Your task to perform on an android device: Check the news Image 0: 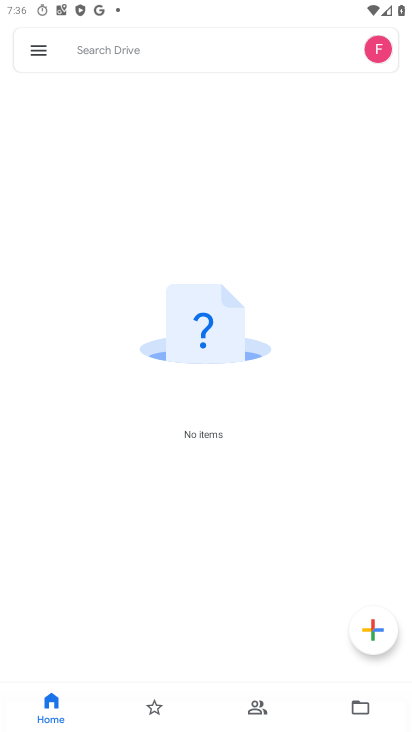
Step 0: press home button
Your task to perform on an android device: Check the news Image 1: 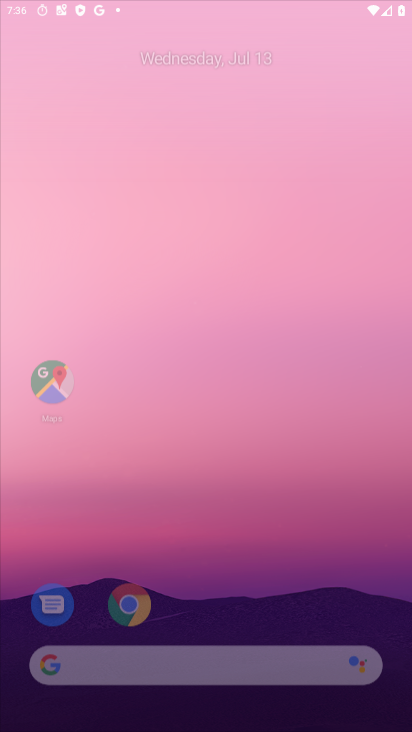
Step 1: drag from (333, 660) to (247, 25)
Your task to perform on an android device: Check the news Image 2: 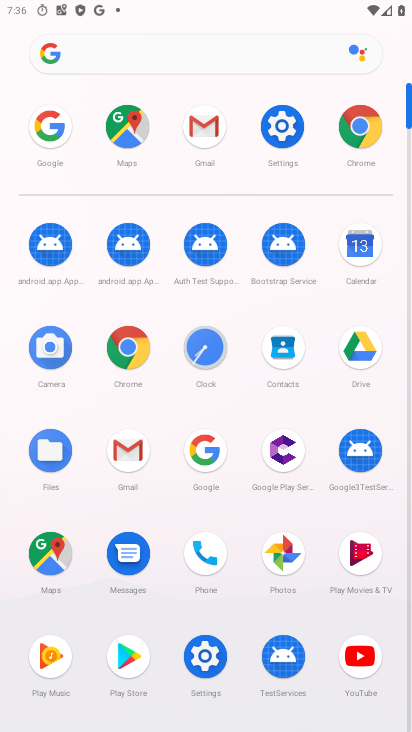
Step 2: click (203, 456)
Your task to perform on an android device: Check the news Image 3: 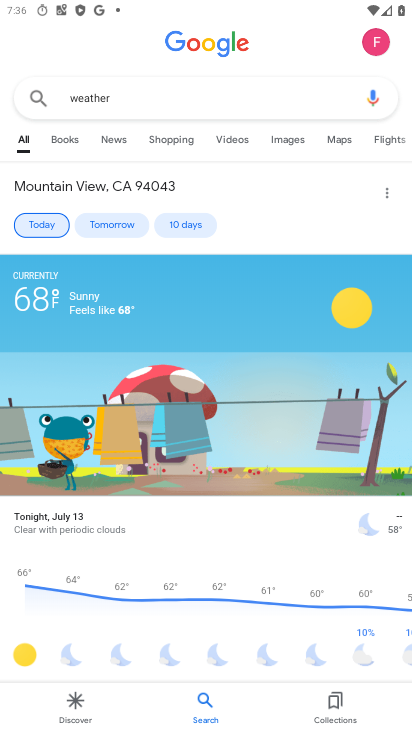
Step 3: press back button
Your task to perform on an android device: Check the news Image 4: 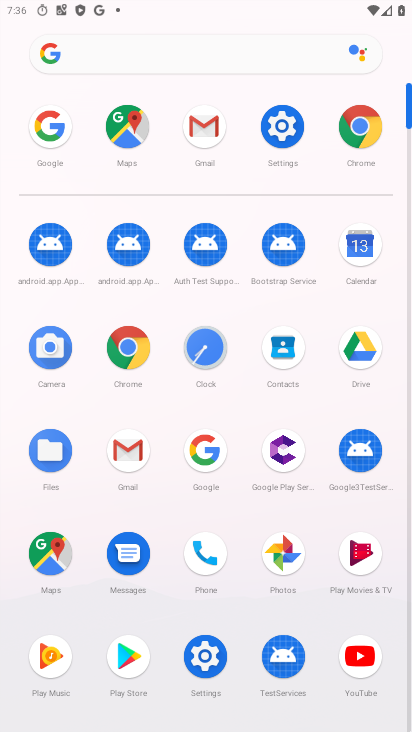
Step 4: click (98, 50)
Your task to perform on an android device: Check the news Image 5: 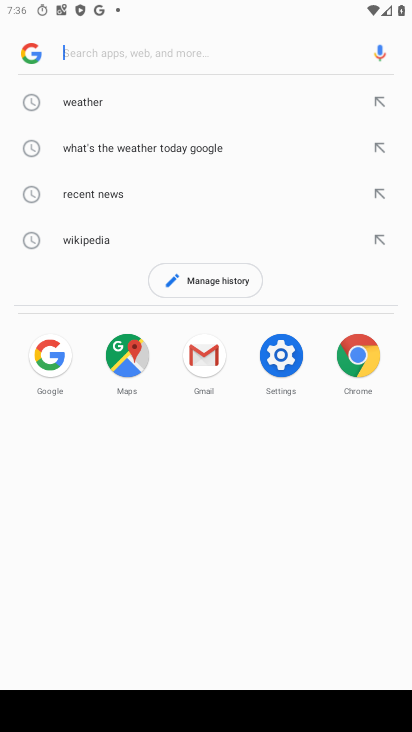
Step 5: type "news"
Your task to perform on an android device: Check the news Image 6: 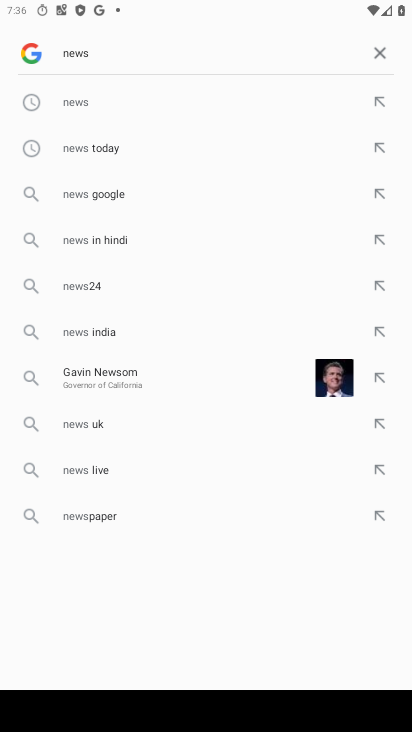
Step 6: click (88, 120)
Your task to perform on an android device: Check the news Image 7: 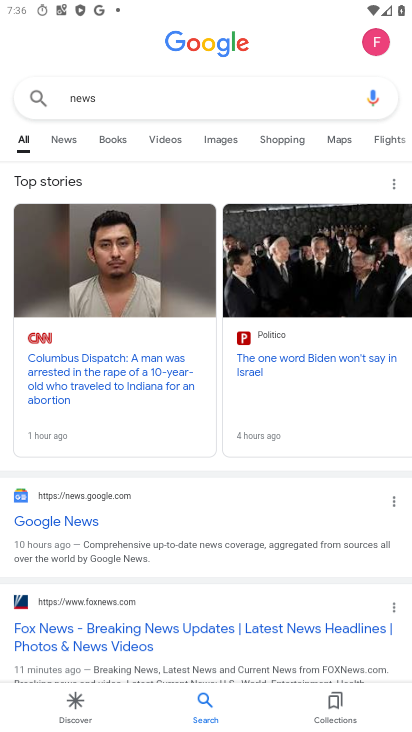
Step 7: task complete